Your task to perform on an android device: find snoozed emails in the gmail app Image 0: 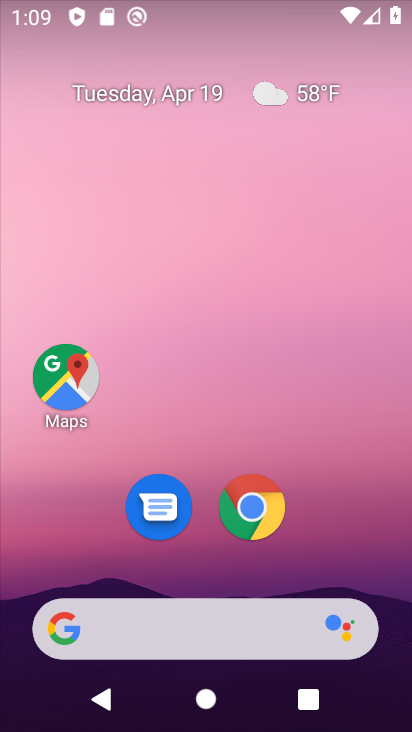
Step 0: drag from (230, 310) to (228, 121)
Your task to perform on an android device: find snoozed emails in the gmail app Image 1: 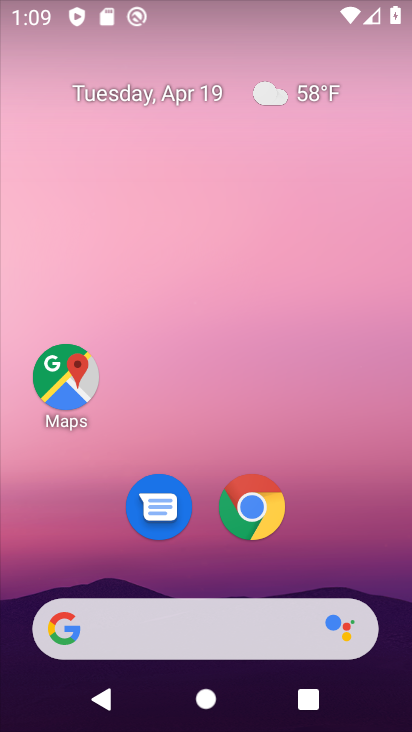
Step 1: drag from (200, 528) to (226, 128)
Your task to perform on an android device: find snoozed emails in the gmail app Image 2: 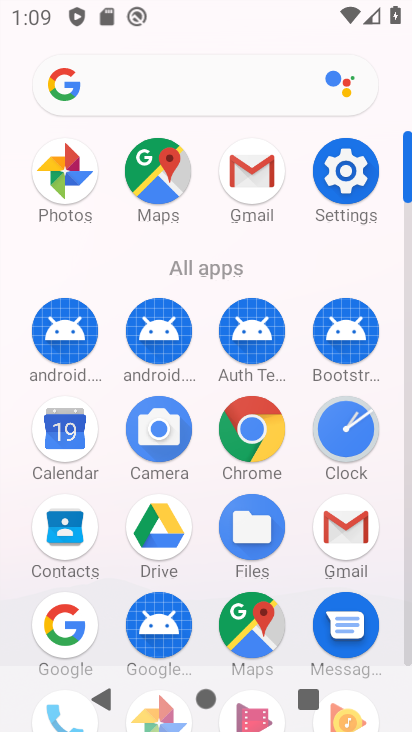
Step 2: click (254, 170)
Your task to perform on an android device: find snoozed emails in the gmail app Image 3: 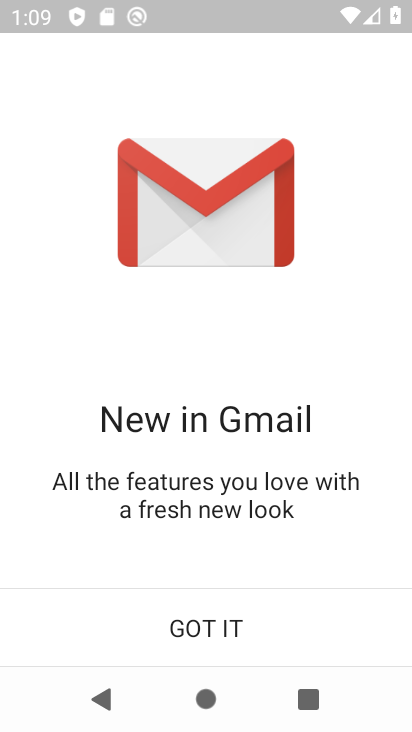
Step 3: click (204, 617)
Your task to perform on an android device: find snoozed emails in the gmail app Image 4: 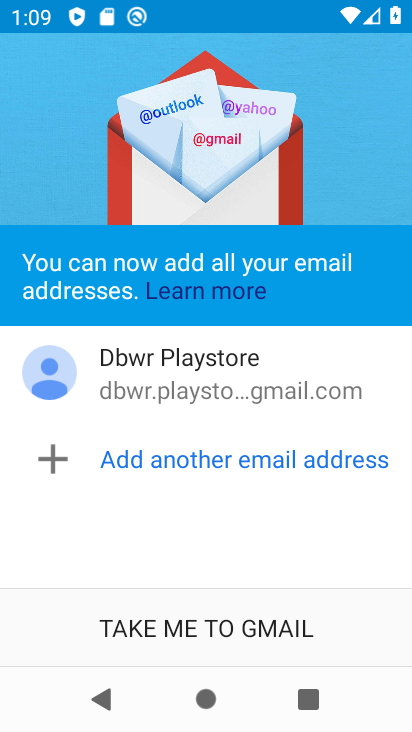
Step 4: click (207, 619)
Your task to perform on an android device: find snoozed emails in the gmail app Image 5: 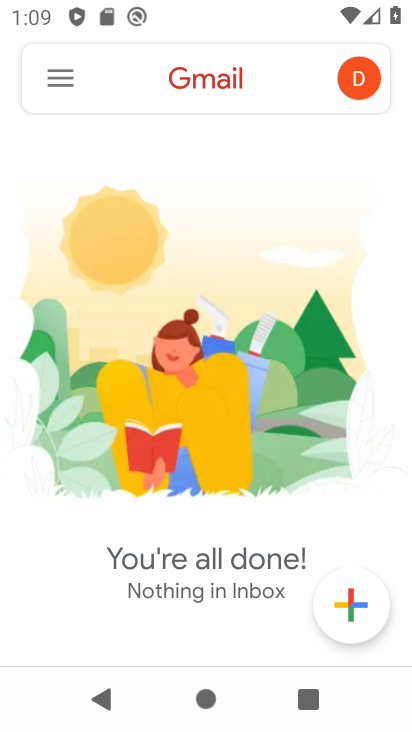
Step 5: click (67, 78)
Your task to perform on an android device: find snoozed emails in the gmail app Image 6: 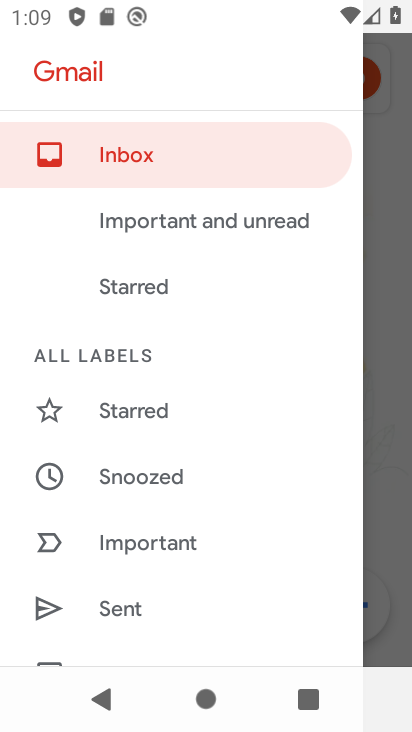
Step 6: click (174, 476)
Your task to perform on an android device: find snoozed emails in the gmail app Image 7: 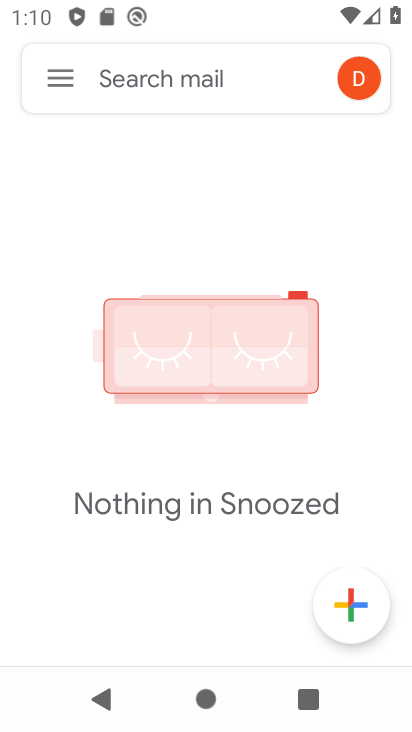
Step 7: task complete